Your task to perform on an android device: turn on notifications settings in the gmail app Image 0: 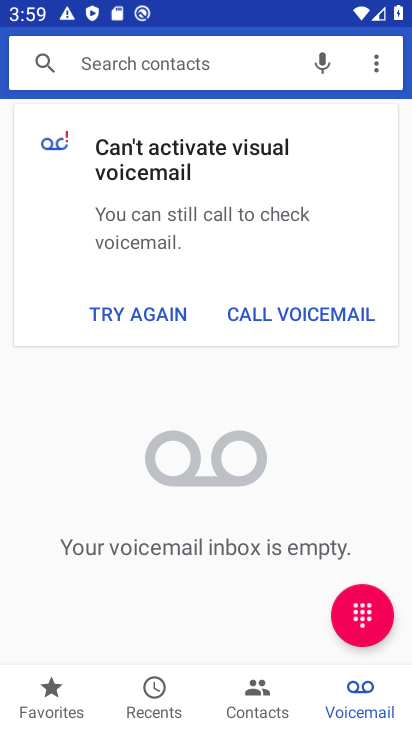
Step 0: press home button
Your task to perform on an android device: turn on notifications settings in the gmail app Image 1: 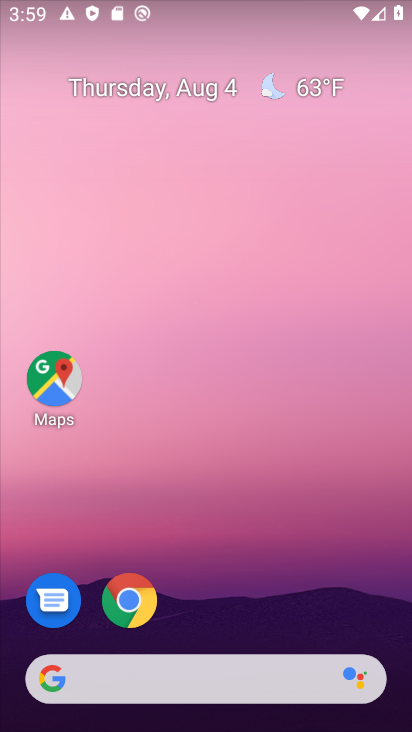
Step 1: drag from (261, 579) to (326, 129)
Your task to perform on an android device: turn on notifications settings in the gmail app Image 2: 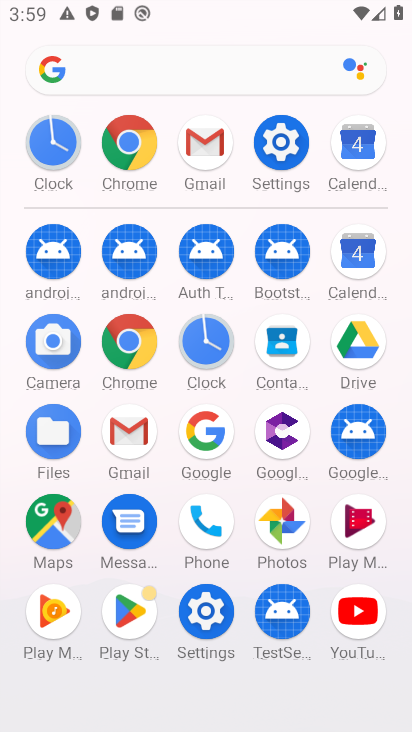
Step 2: click (212, 146)
Your task to perform on an android device: turn on notifications settings in the gmail app Image 3: 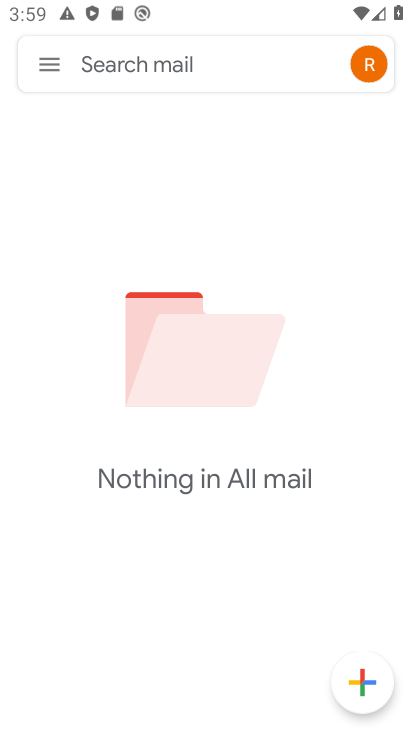
Step 3: press home button
Your task to perform on an android device: turn on notifications settings in the gmail app Image 4: 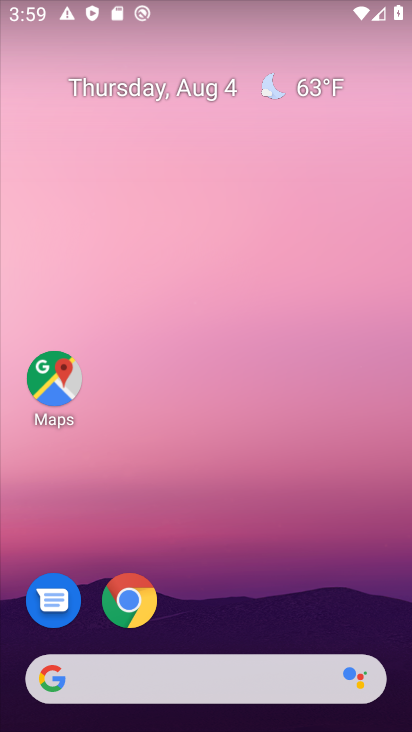
Step 4: drag from (305, 650) to (318, 120)
Your task to perform on an android device: turn on notifications settings in the gmail app Image 5: 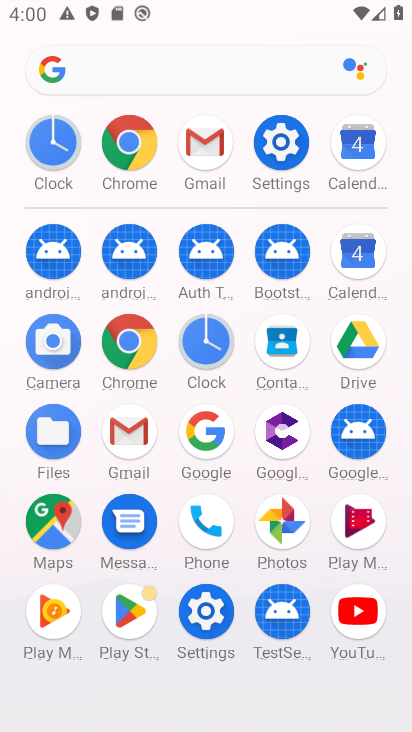
Step 5: click (126, 424)
Your task to perform on an android device: turn on notifications settings in the gmail app Image 6: 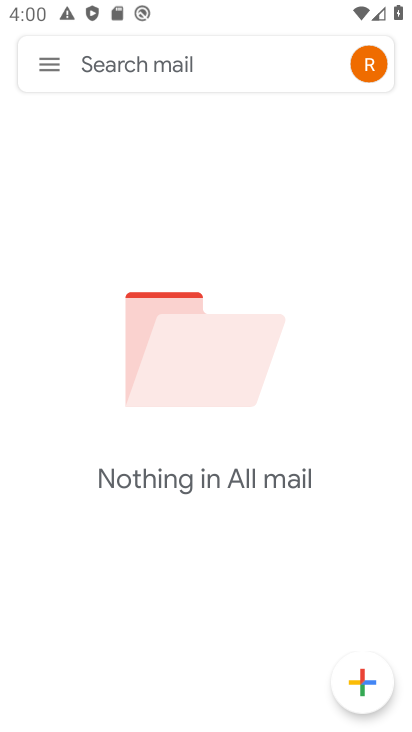
Step 6: click (39, 57)
Your task to perform on an android device: turn on notifications settings in the gmail app Image 7: 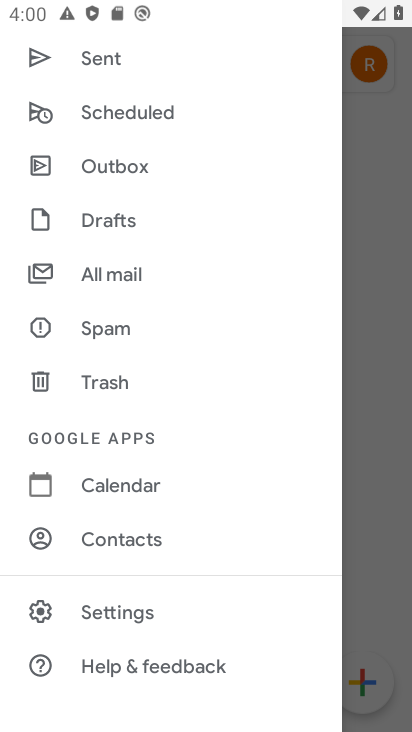
Step 7: click (136, 610)
Your task to perform on an android device: turn on notifications settings in the gmail app Image 8: 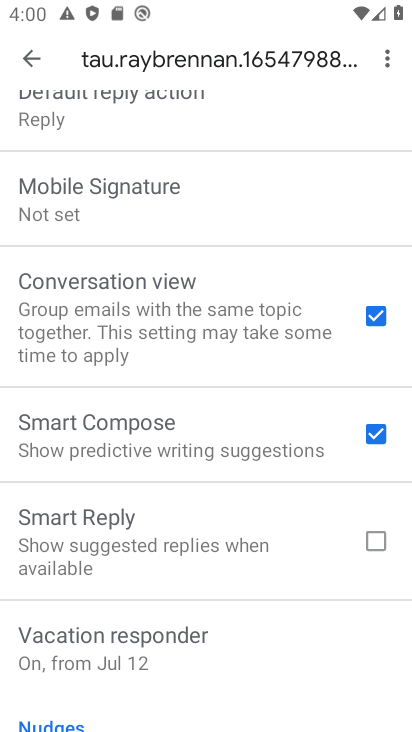
Step 8: drag from (223, 103) to (239, 531)
Your task to perform on an android device: turn on notifications settings in the gmail app Image 9: 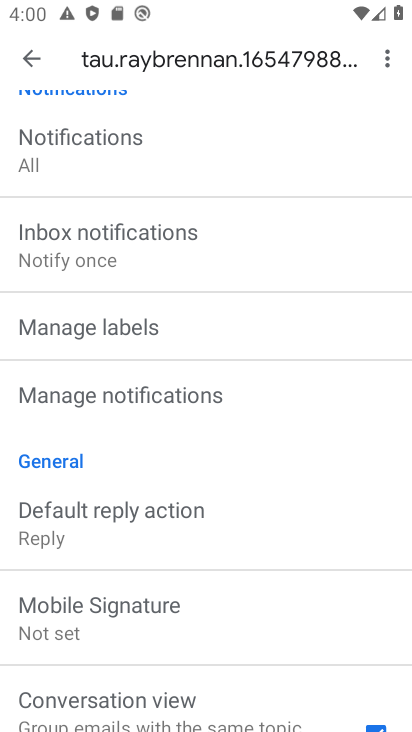
Step 9: click (170, 387)
Your task to perform on an android device: turn on notifications settings in the gmail app Image 10: 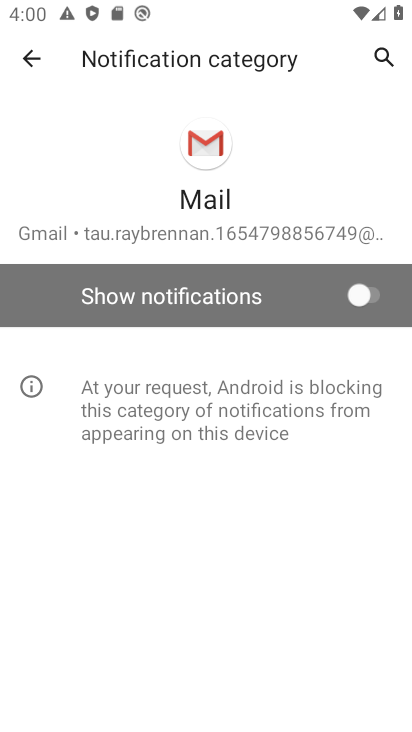
Step 10: click (367, 287)
Your task to perform on an android device: turn on notifications settings in the gmail app Image 11: 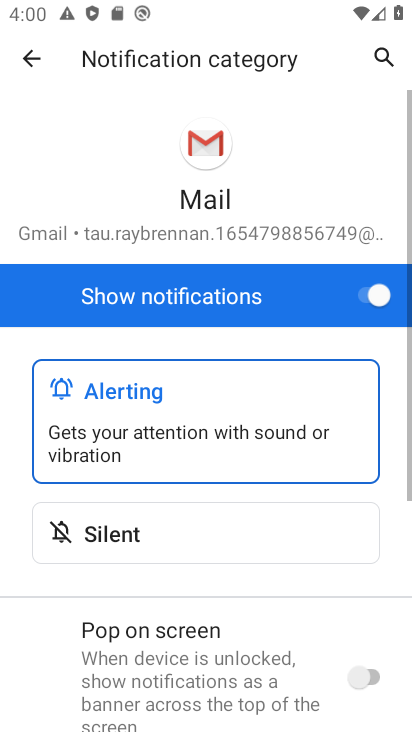
Step 11: task complete